Your task to perform on an android device: turn on the 12-hour format for clock Image 0: 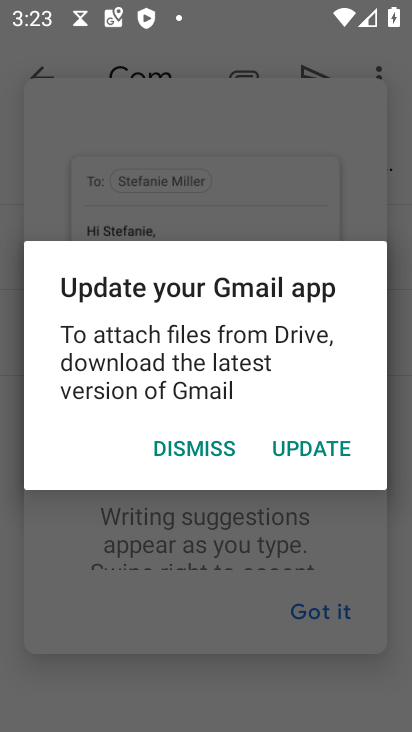
Step 0: click (324, 609)
Your task to perform on an android device: turn on the 12-hour format for clock Image 1: 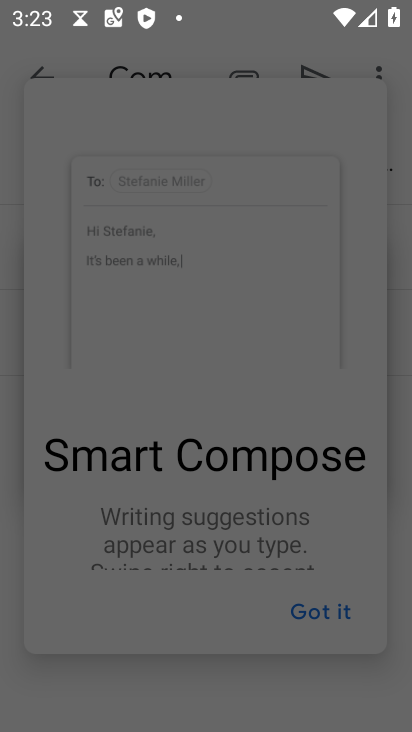
Step 1: press back button
Your task to perform on an android device: turn on the 12-hour format for clock Image 2: 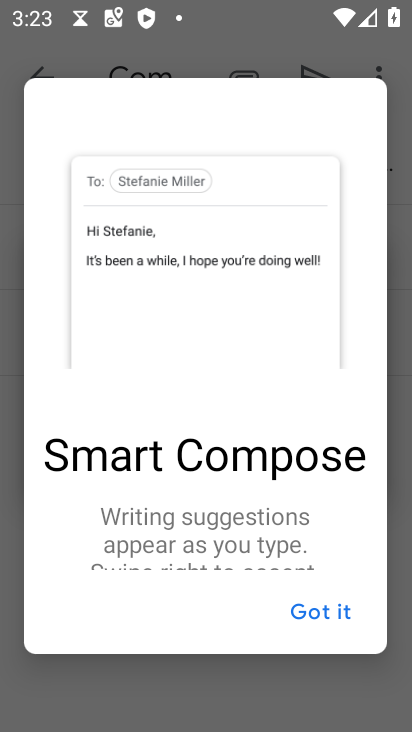
Step 2: click (327, 612)
Your task to perform on an android device: turn on the 12-hour format for clock Image 3: 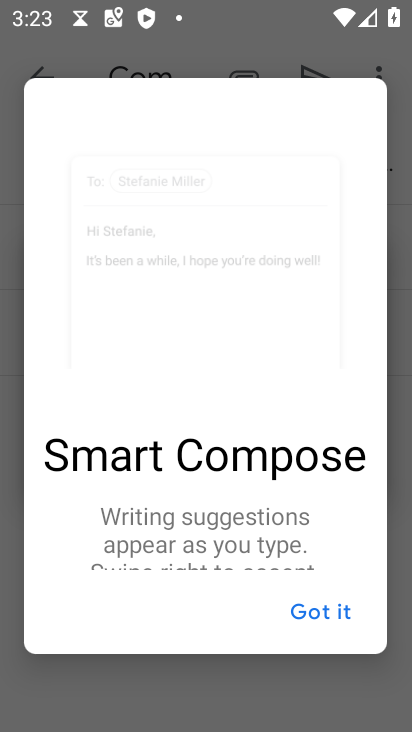
Step 3: click (327, 610)
Your task to perform on an android device: turn on the 12-hour format for clock Image 4: 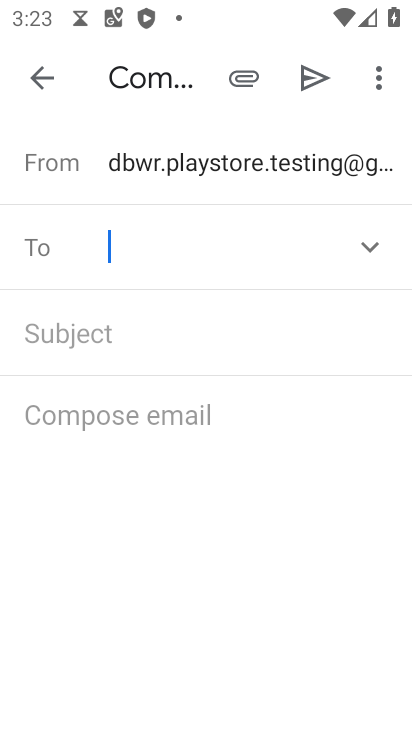
Step 4: click (38, 70)
Your task to perform on an android device: turn on the 12-hour format for clock Image 5: 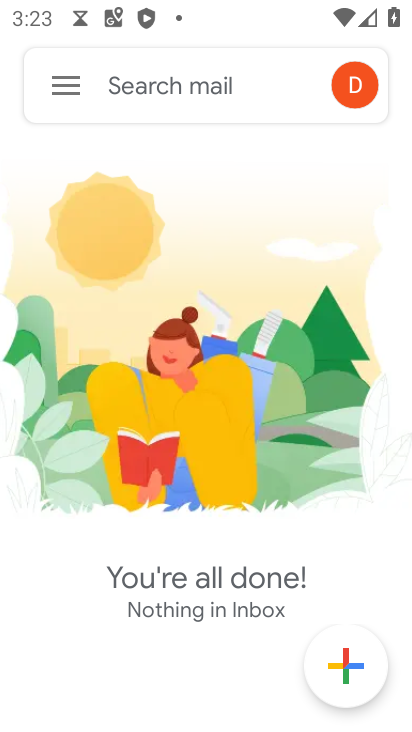
Step 5: press back button
Your task to perform on an android device: turn on the 12-hour format for clock Image 6: 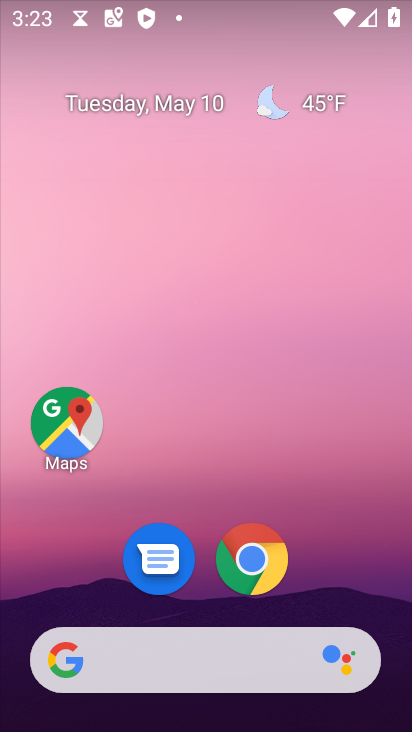
Step 6: drag from (291, 513) to (103, 116)
Your task to perform on an android device: turn on the 12-hour format for clock Image 7: 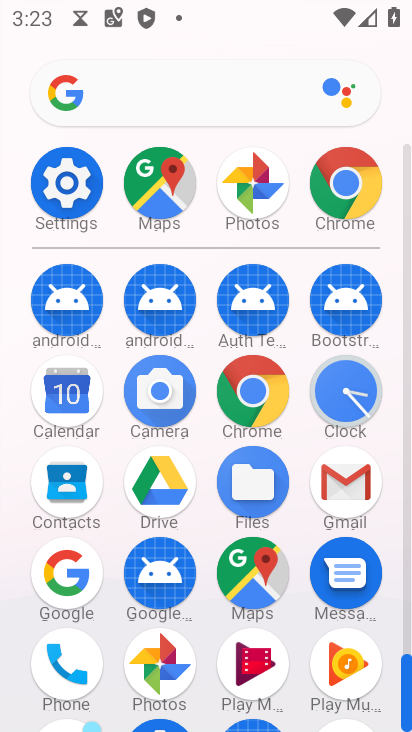
Step 7: click (340, 399)
Your task to perform on an android device: turn on the 12-hour format for clock Image 8: 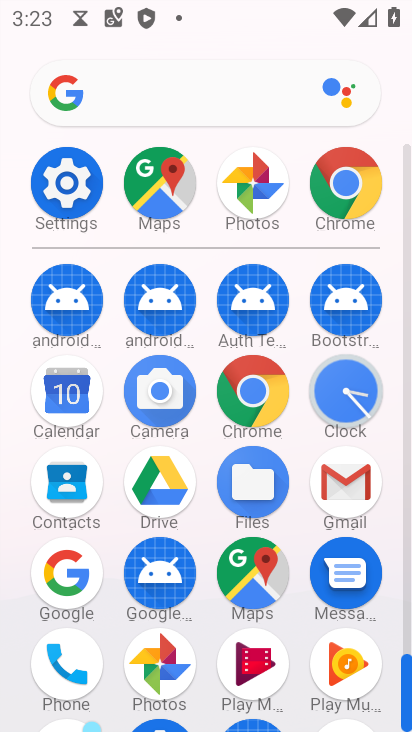
Step 8: click (341, 399)
Your task to perform on an android device: turn on the 12-hour format for clock Image 9: 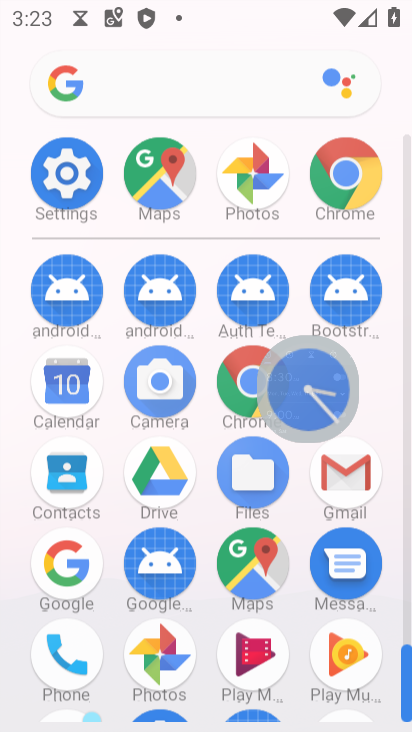
Step 9: click (342, 398)
Your task to perform on an android device: turn on the 12-hour format for clock Image 10: 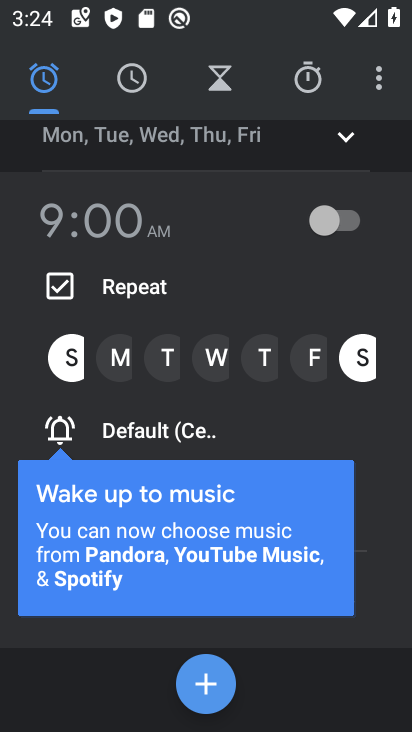
Step 10: click (322, 221)
Your task to perform on an android device: turn on the 12-hour format for clock Image 11: 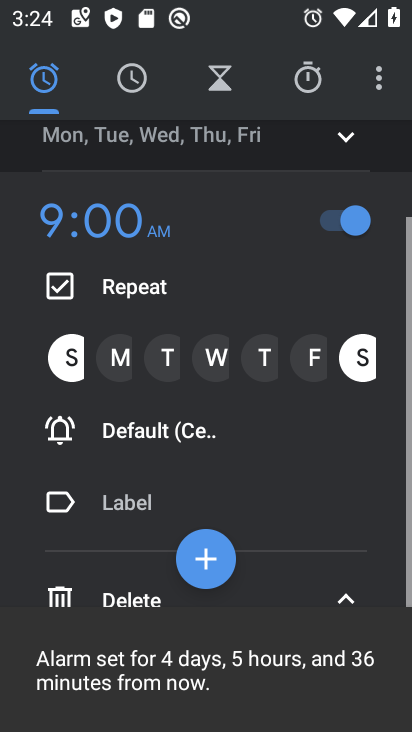
Step 11: click (376, 86)
Your task to perform on an android device: turn on the 12-hour format for clock Image 12: 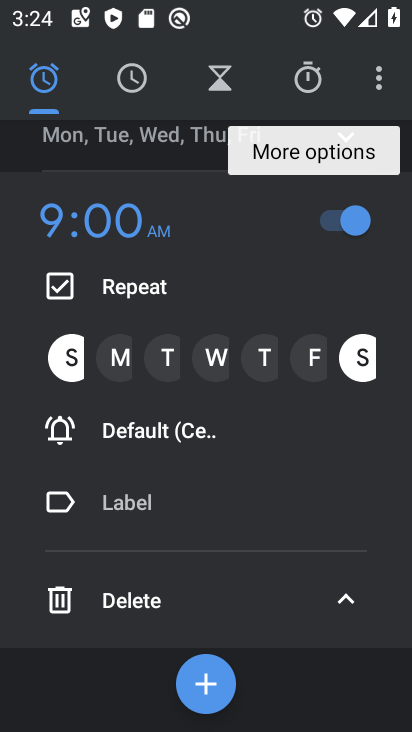
Step 12: click (376, 89)
Your task to perform on an android device: turn on the 12-hour format for clock Image 13: 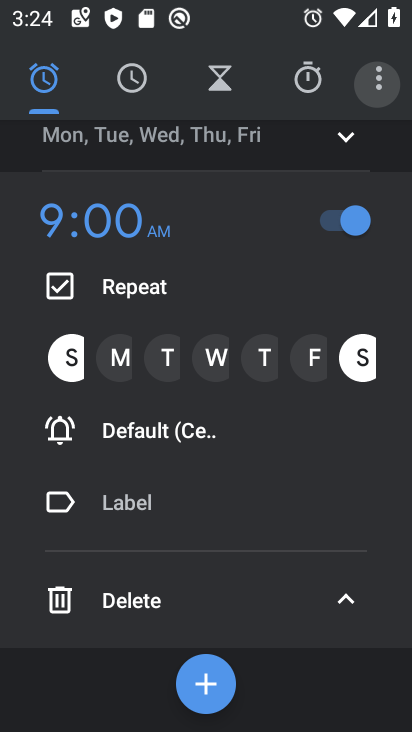
Step 13: click (376, 89)
Your task to perform on an android device: turn on the 12-hour format for clock Image 14: 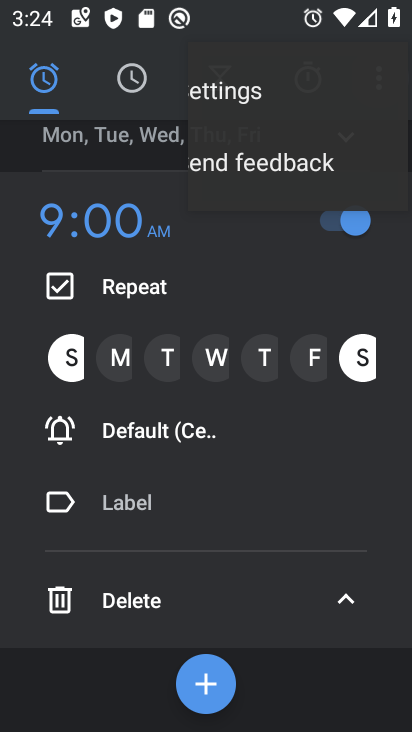
Step 14: click (376, 89)
Your task to perform on an android device: turn on the 12-hour format for clock Image 15: 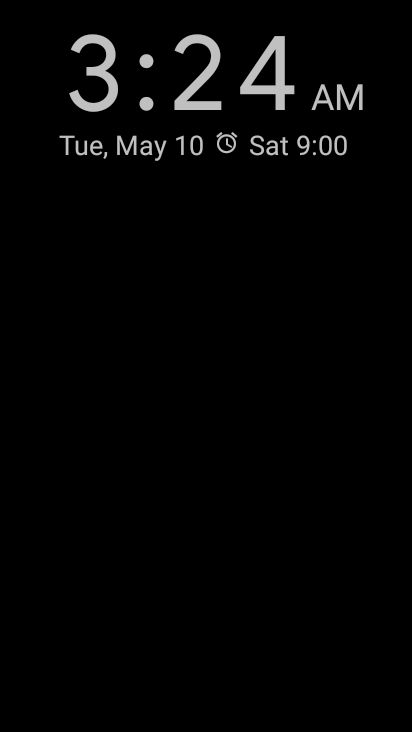
Step 15: press back button
Your task to perform on an android device: turn on the 12-hour format for clock Image 16: 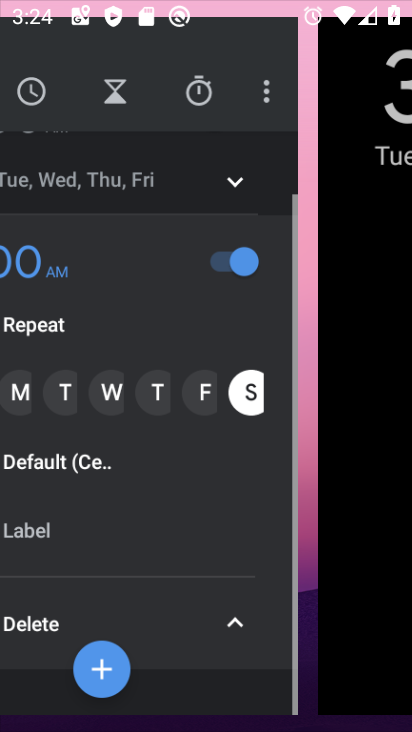
Step 16: press back button
Your task to perform on an android device: turn on the 12-hour format for clock Image 17: 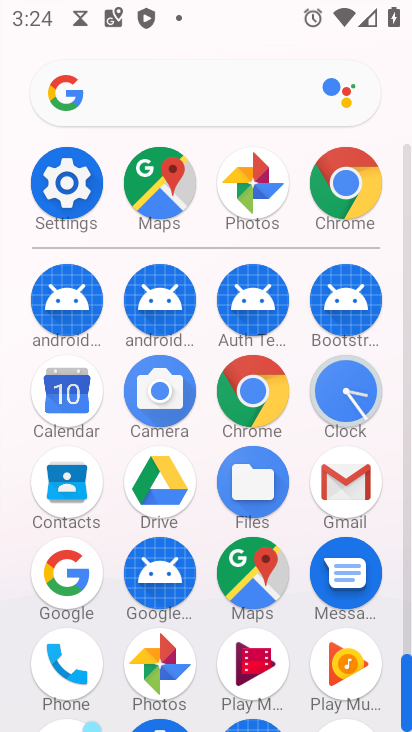
Step 17: click (339, 392)
Your task to perform on an android device: turn on the 12-hour format for clock Image 18: 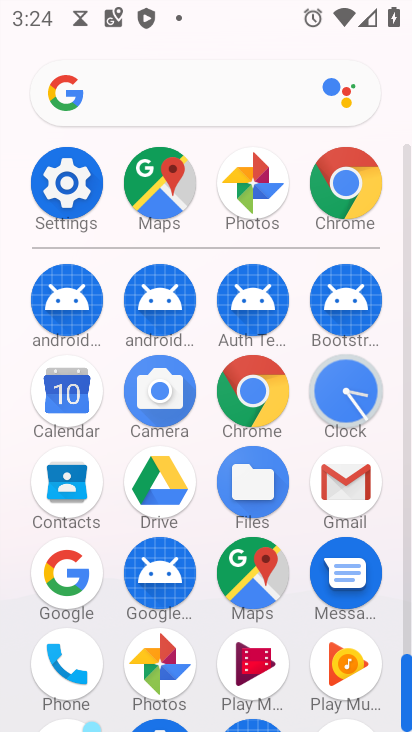
Step 18: click (339, 402)
Your task to perform on an android device: turn on the 12-hour format for clock Image 19: 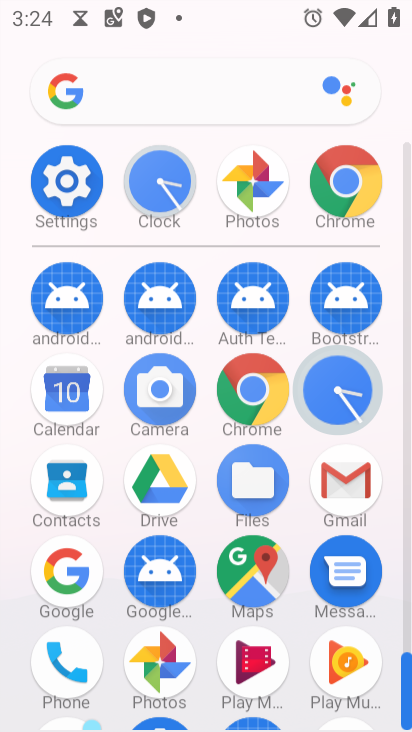
Step 19: click (340, 403)
Your task to perform on an android device: turn on the 12-hour format for clock Image 20: 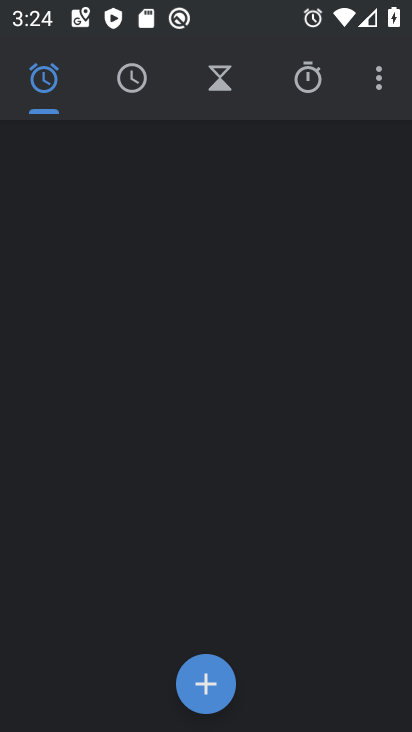
Step 20: click (345, 404)
Your task to perform on an android device: turn on the 12-hour format for clock Image 21: 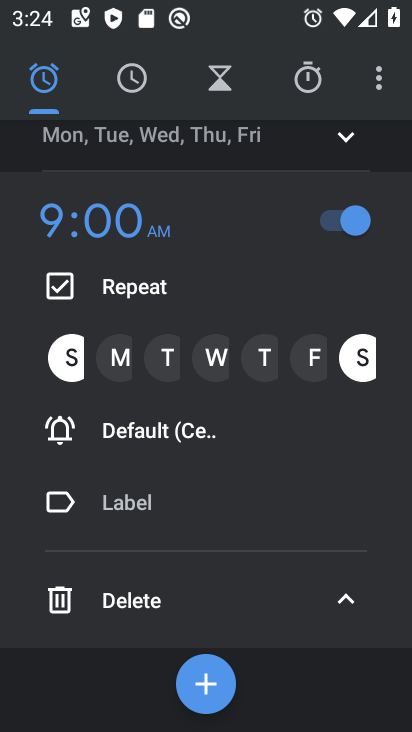
Step 21: click (377, 80)
Your task to perform on an android device: turn on the 12-hour format for clock Image 22: 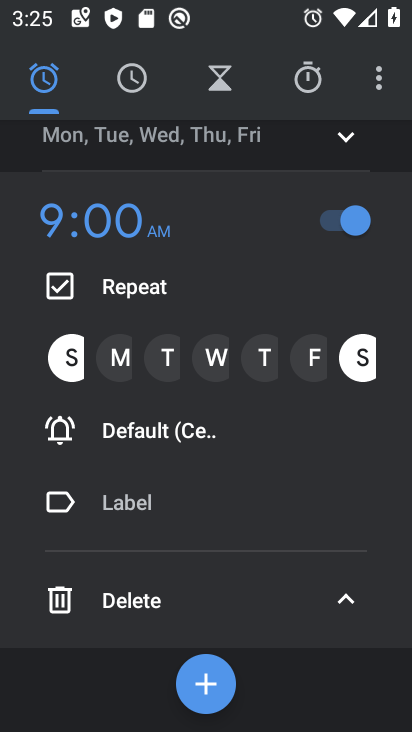
Step 22: click (377, 74)
Your task to perform on an android device: turn on the 12-hour format for clock Image 23: 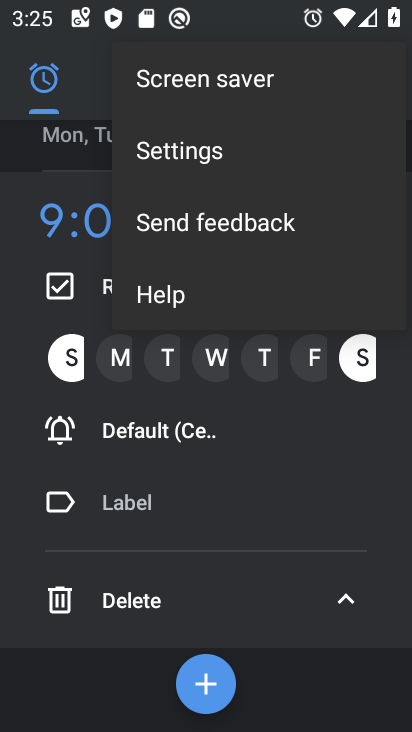
Step 23: click (175, 147)
Your task to perform on an android device: turn on the 12-hour format for clock Image 24: 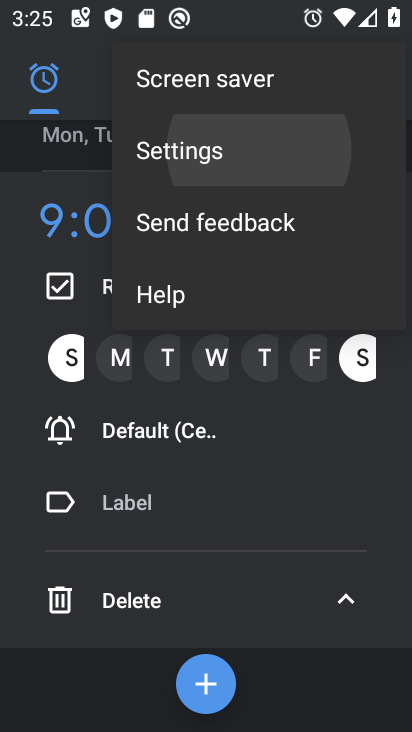
Step 24: click (175, 147)
Your task to perform on an android device: turn on the 12-hour format for clock Image 25: 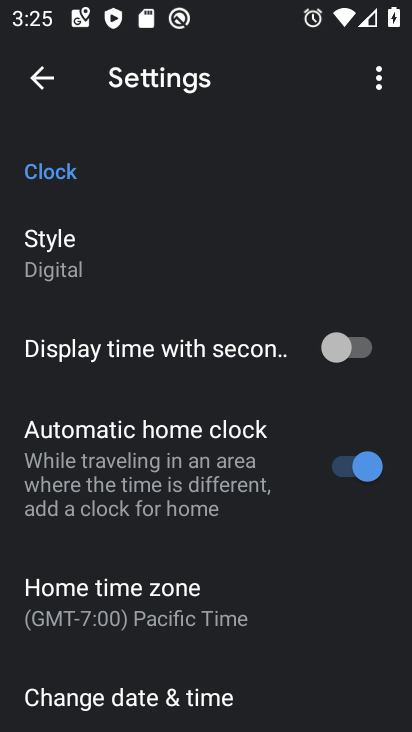
Step 25: drag from (227, 609) to (124, 147)
Your task to perform on an android device: turn on the 12-hour format for clock Image 26: 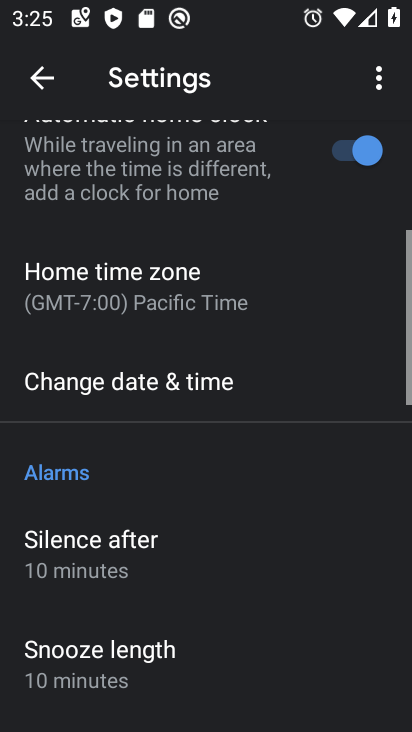
Step 26: drag from (132, 460) to (99, 173)
Your task to perform on an android device: turn on the 12-hour format for clock Image 27: 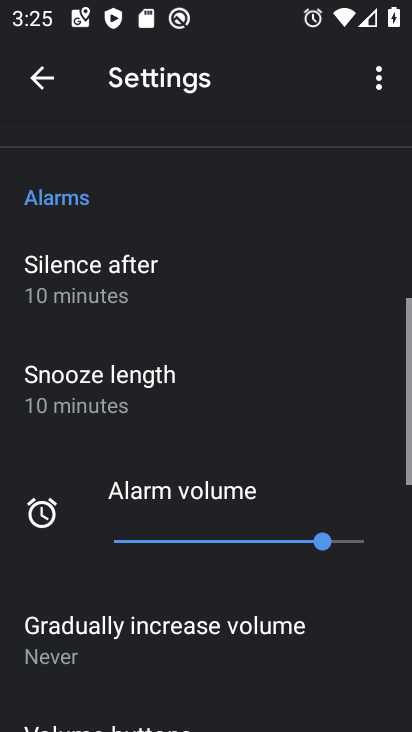
Step 27: drag from (136, 500) to (131, 249)
Your task to perform on an android device: turn on the 12-hour format for clock Image 28: 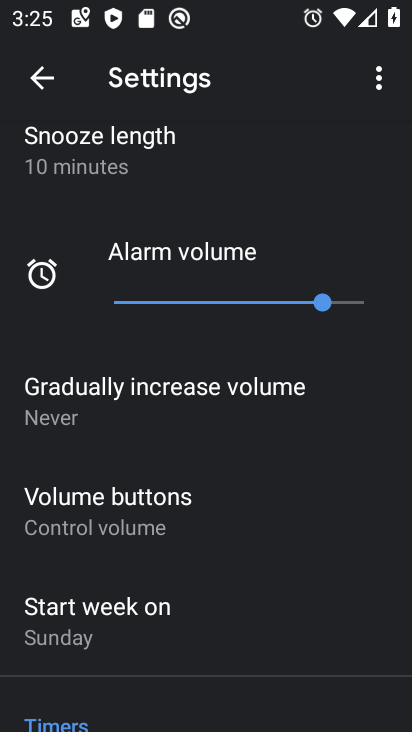
Step 28: drag from (113, 592) to (108, 72)
Your task to perform on an android device: turn on the 12-hour format for clock Image 29: 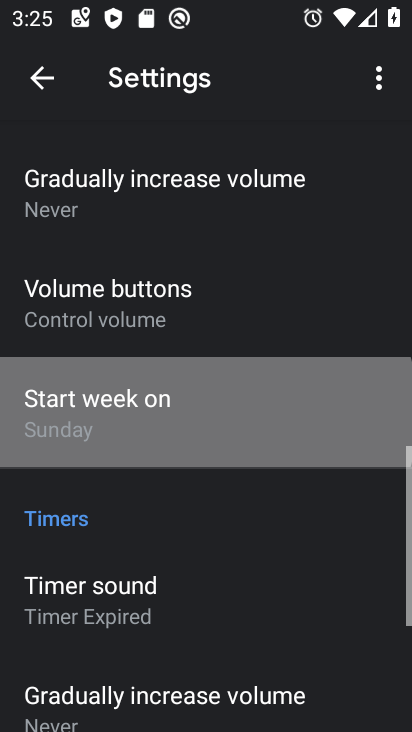
Step 29: click (182, 123)
Your task to perform on an android device: turn on the 12-hour format for clock Image 30: 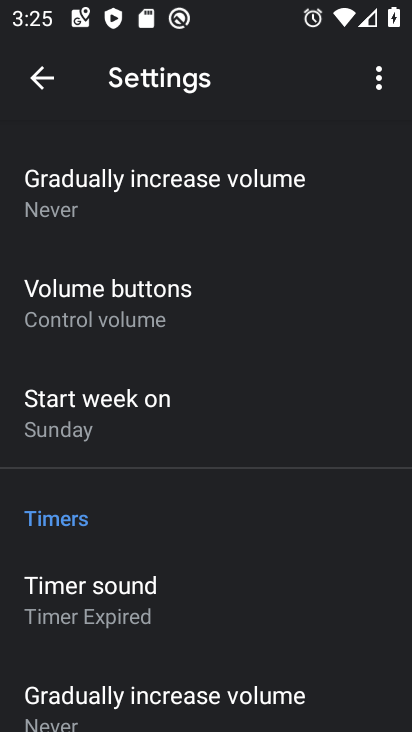
Step 30: drag from (139, 645) to (174, 120)
Your task to perform on an android device: turn on the 12-hour format for clock Image 31: 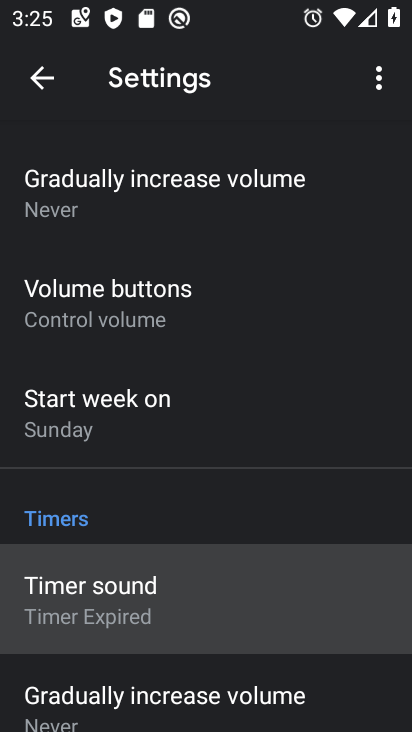
Step 31: drag from (216, 652) to (222, 144)
Your task to perform on an android device: turn on the 12-hour format for clock Image 32: 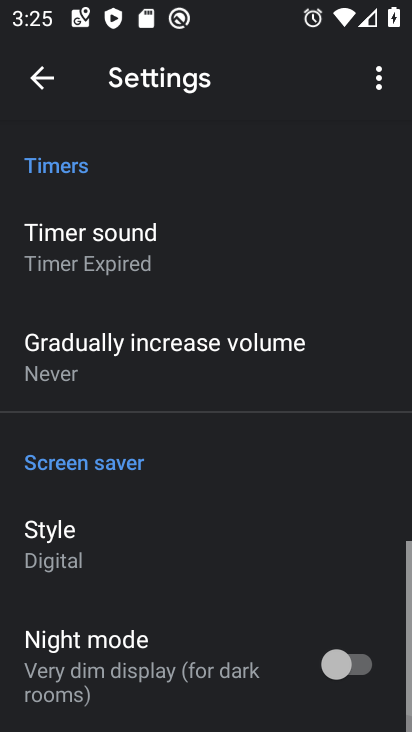
Step 32: drag from (213, 620) to (161, 286)
Your task to perform on an android device: turn on the 12-hour format for clock Image 33: 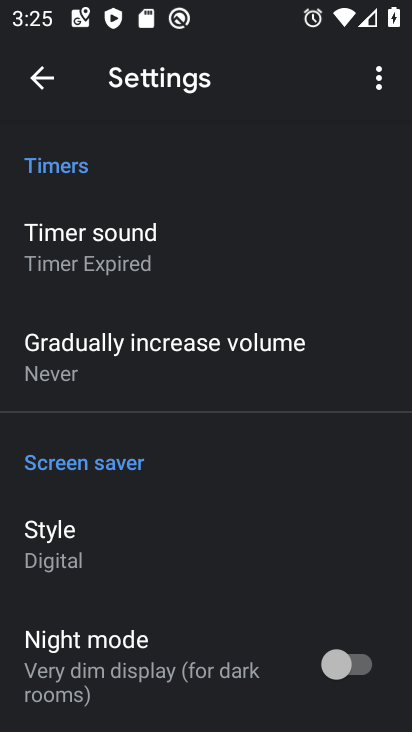
Step 33: drag from (209, 554) to (131, 127)
Your task to perform on an android device: turn on the 12-hour format for clock Image 34: 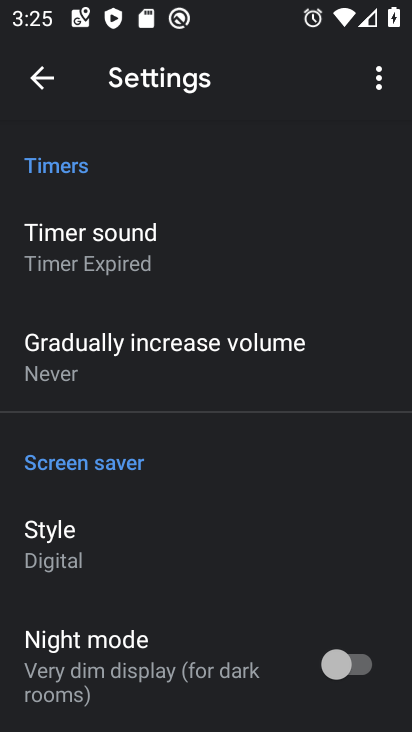
Step 34: drag from (179, 401) to (163, 41)
Your task to perform on an android device: turn on the 12-hour format for clock Image 35: 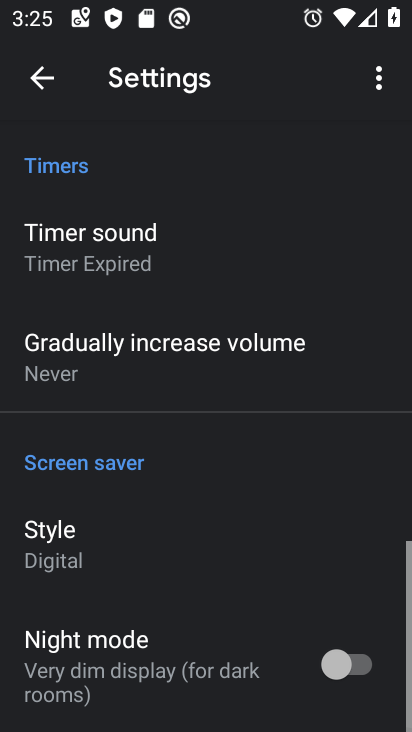
Step 35: drag from (159, 471) to (126, 67)
Your task to perform on an android device: turn on the 12-hour format for clock Image 36: 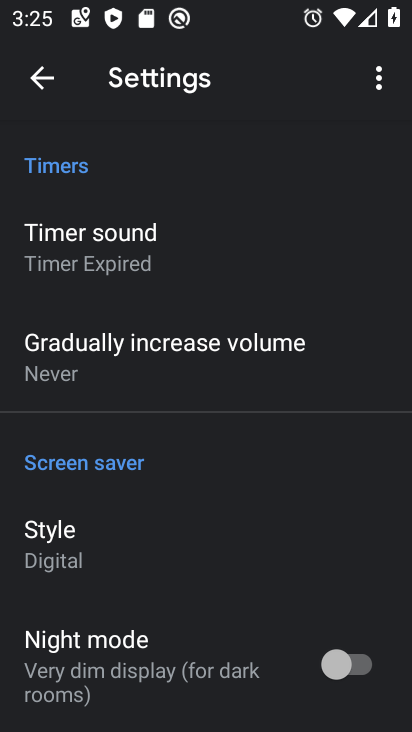
Step 36: drag from (156, 576) to (151, 79)
Your task to perform on an android device: turn on the 12-hour format for clock Image 37: 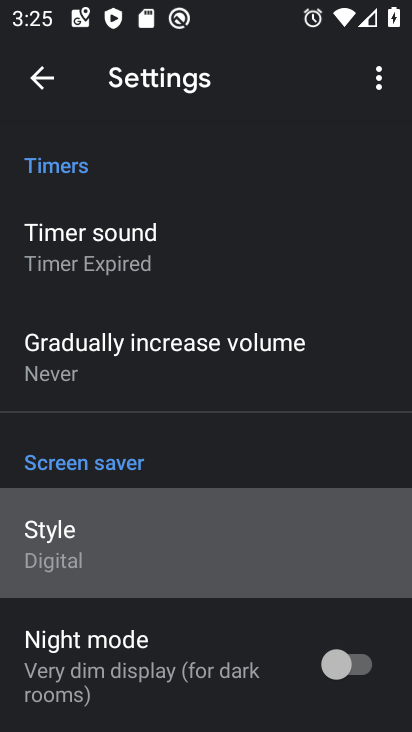
Step 37: drag from (264, 492) to (229, 201)
Your task to perform on an android device: turn on the 12-hour format for clock Image 38: 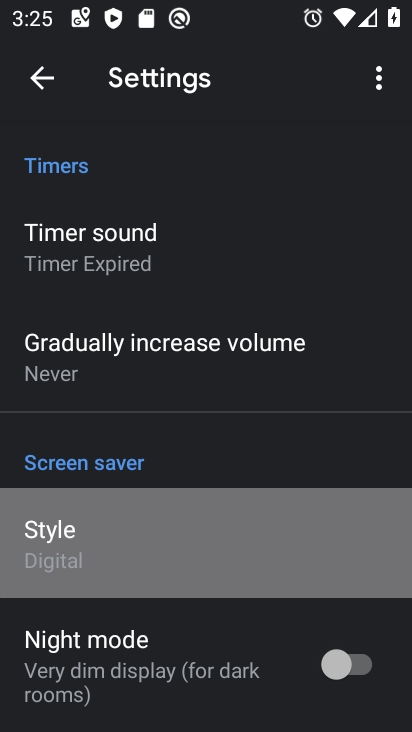
Step 38: drag from (209, 239) to (243, 492)
Your task to perform on an android device: turn on the 12-hour format for clock Image 39: 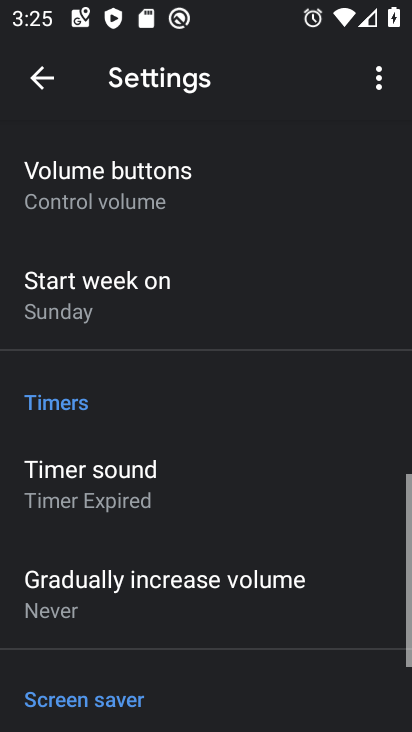
Step 39: drag from (191, 344) to (231, 561)
Your task to perform on an android device: turn on the 12-hour format for clock Image 40: 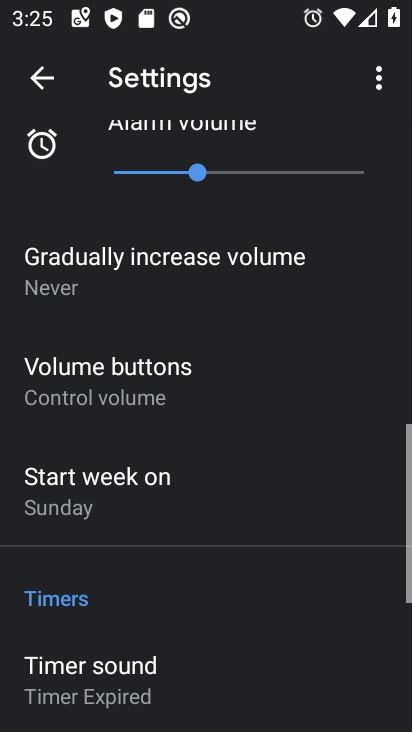
Step 40: drag from (180, 310) to (204, 430)
Your task to perform on an android device: turn on the 12-hour format for clock Image 41: 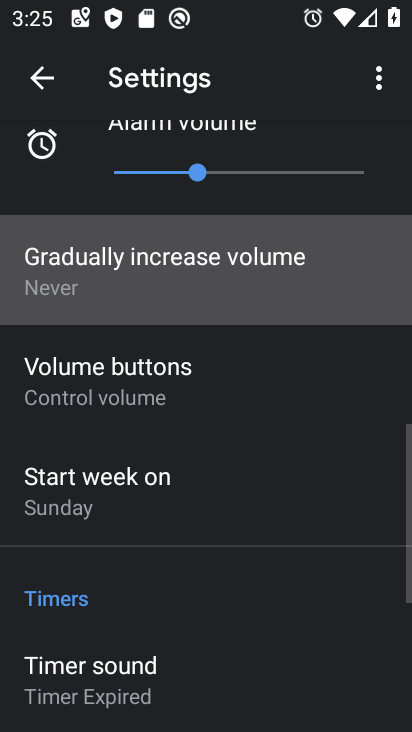
Step 41: drag from (139, 283) to (217, 586)
Your task to perform on an android device: turn on the 12-hour format for clock Image 42: 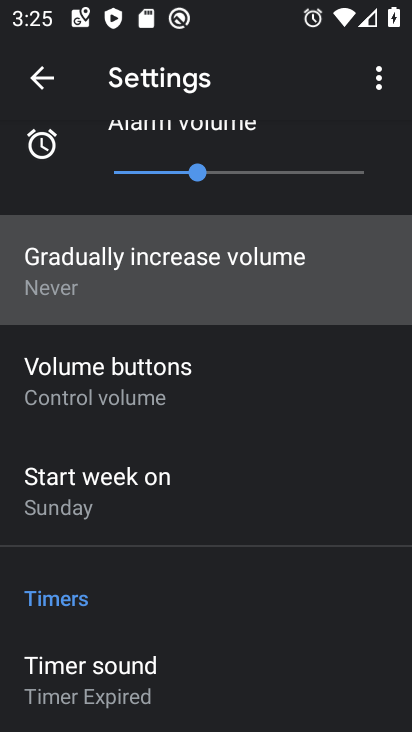
Step 42: drag from (161, 374) to (229, 685)
Your task to perform on an android device: turn on the 12-hour format for clock Image 43: 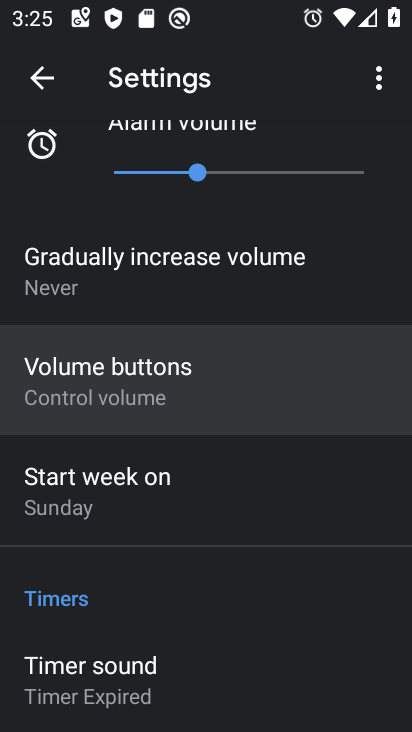
Step 43: drag from (191, 349) to (267, 689)
Your task to perform on an android device: turn on the 12-hour format for clock Image 44: 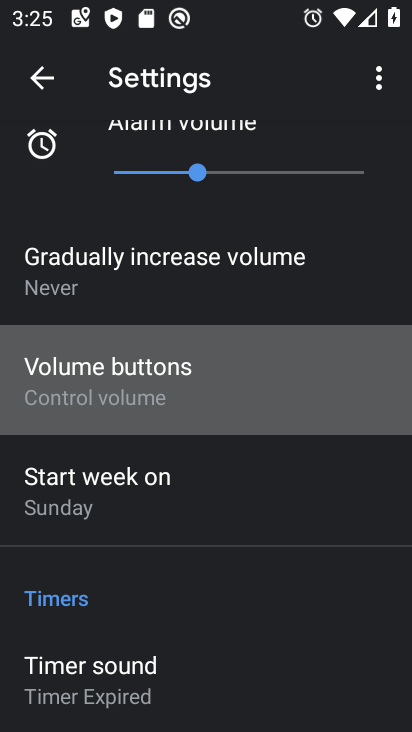
Step 44: drag from (224, 350) to (272, 594)
Your task to perform on an android device: turn on the 12-hour format for clock Image 45: 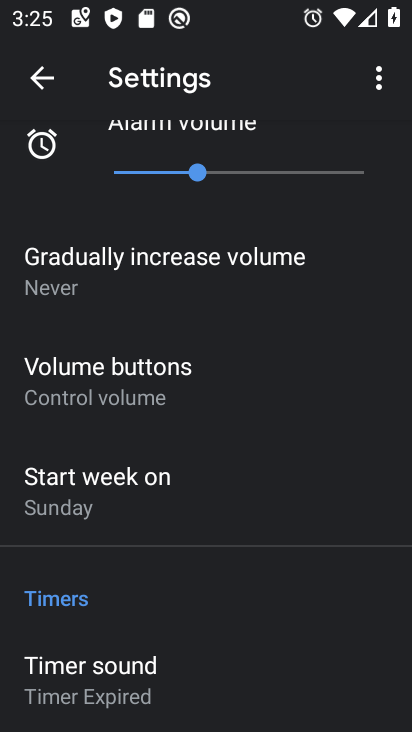
Step 45: drag from (370, 107) to (410, 567)
Your task to perform on an android device: turn on the 12-hour format for clock Image 46: 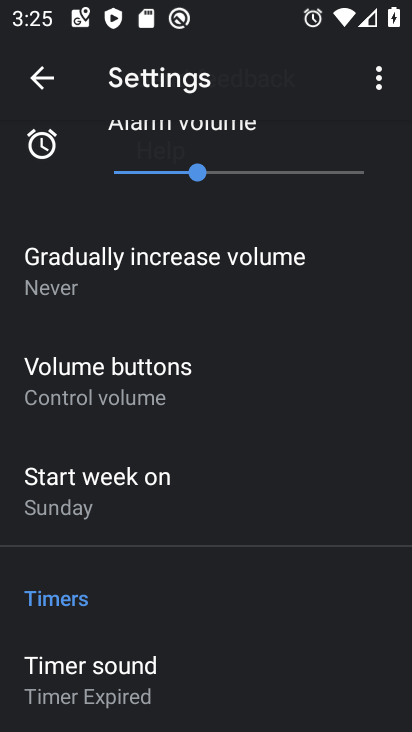
Step 46: drag from (277, 320) to (300, 626)
Your task to perform on an android device: turn on the 12-hour format for clock Image 47: 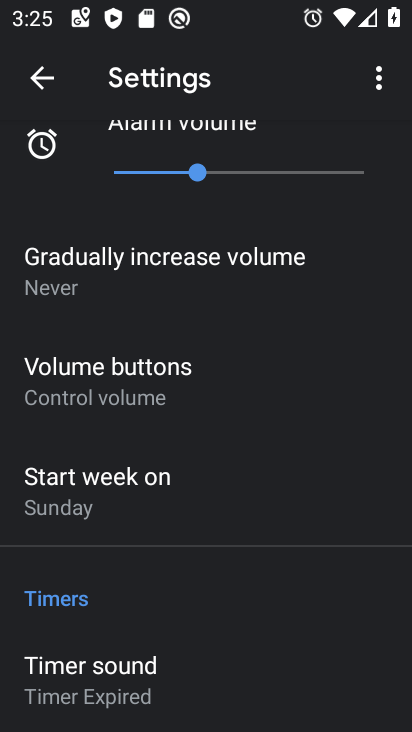
Step 47: drag from (192, 421) to (238, 717)
Your task to perform on an android device: turn on the 12-hour format for clock Image 48: 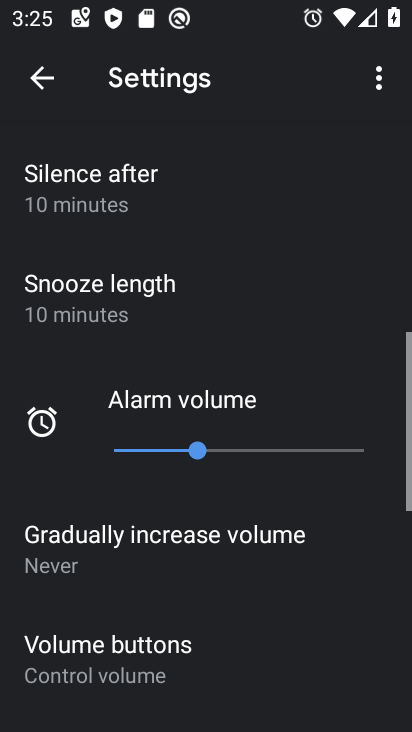
Step 48: drag from (280, 373) to (328, 716)
Your task to perform on an android device: turn on the 12-hour format for clock Image 49: 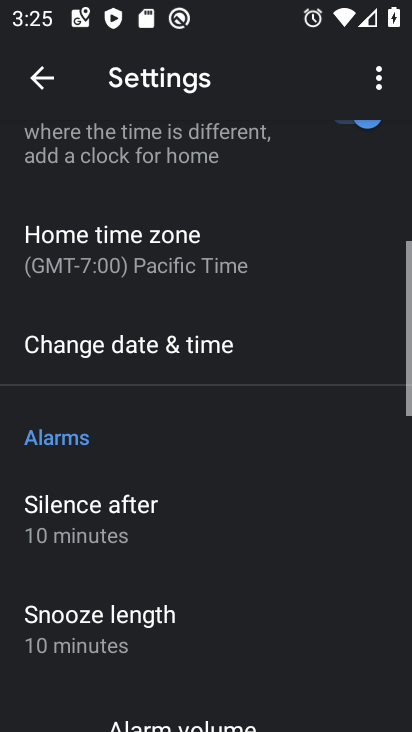
Step 49: click (296, 406)
Your task to perform on an android device: turn on the 12-hour format for clock Image 50: 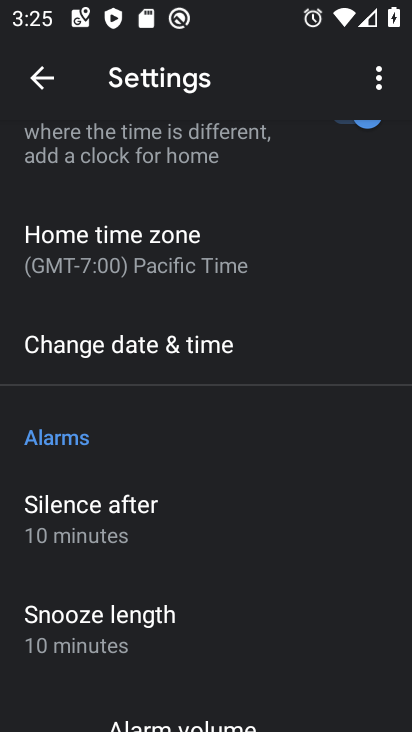
Step 50: click (122, 248)
Your task to perform on an android device: turn on the 12-hour format for clock Image 51: 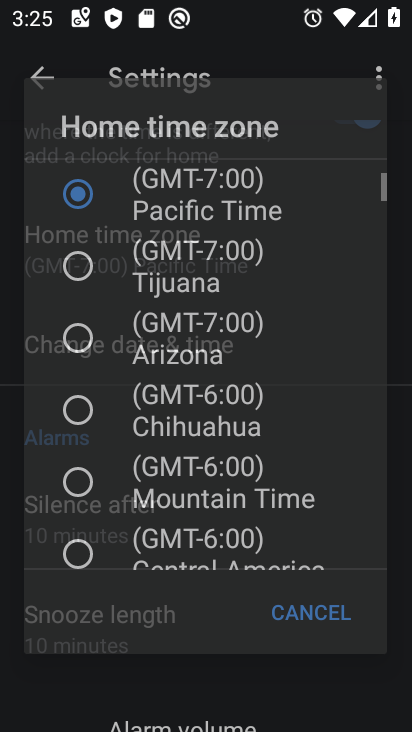
Step 51: click (125, 250)
Your task to perform on an android device: turn on the 12-hour format for clock Image 52: 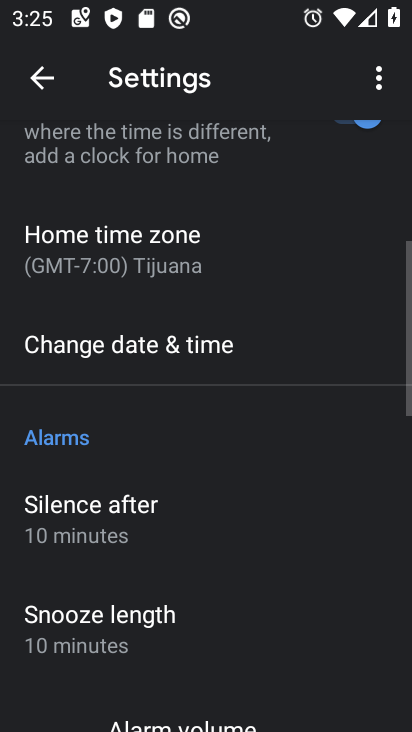
Step 52: click (128, 246)
Your task to perform on an android device: turn on the 12-hour format for clock Image 53: 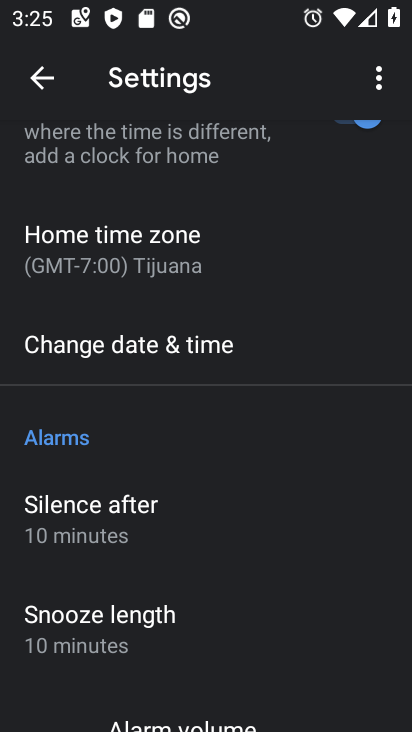
Step 53: click (118, 341)
Your task to perform on an android device: turn on the 12-hour format for clock Image 54: 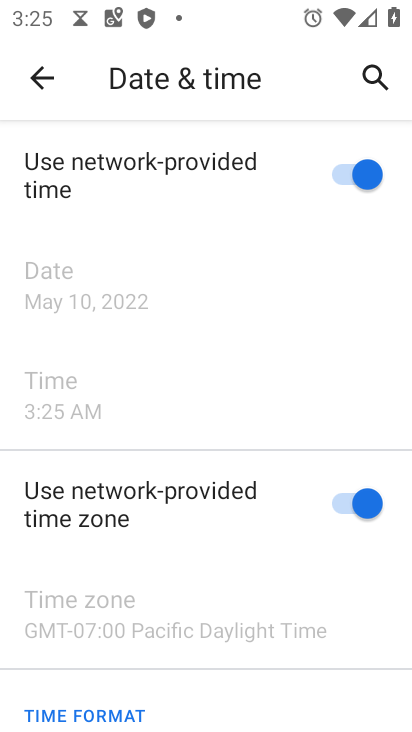
Step 54: drag from (293, 600) to (216, 256)
Your task to perform on an android device: turn on the 12-hour format for clock Image 55: 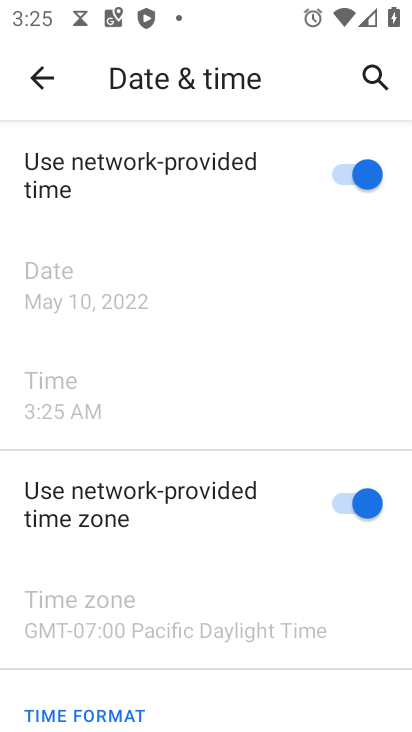
Step 55: drag from (186, 549) to (151, 159)
Your task to perform on an android device: turn on the 12-hour format for clock Image 56: 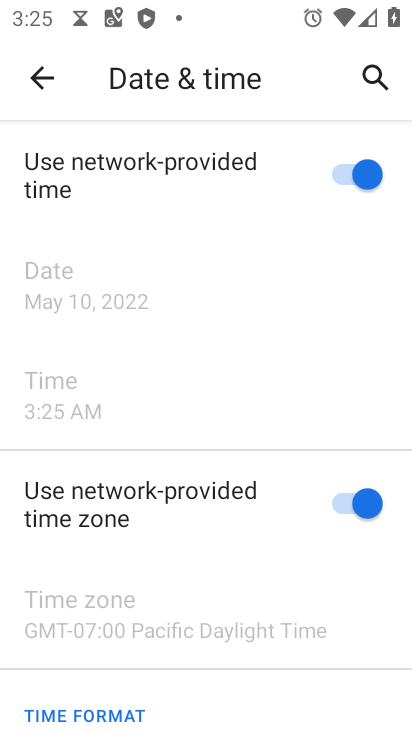
Step 56: drag from (226, 522) to (214, 229)
Your task to perform on an android device: turn on the 12-hour format for clock Image 57: 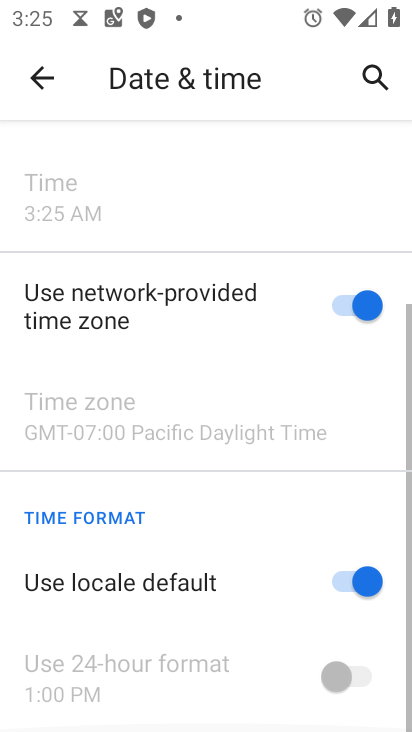
Step 57: drag from (212, 659) to (191, 242)
Your task to perform on an android device: turn on the 12-hour format for clock Image 58: 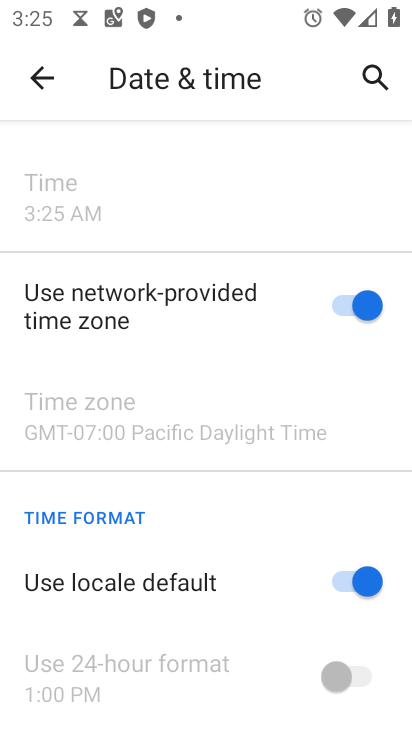
Step 58: drag from (286, 637) to (210, 158)
Your task to perform on an android device: turn on the 12-hour format for clock Image 59: 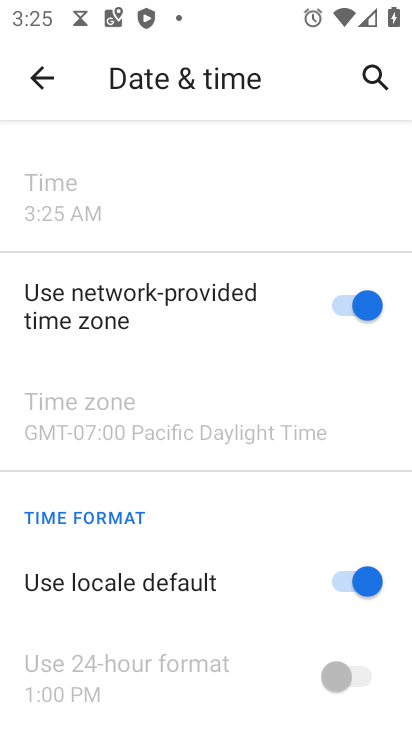
Step 59: drag from (222, 424) to (141, 5)
Your task to perform on an android device: turn on the 12-hour format for clock Image 60: 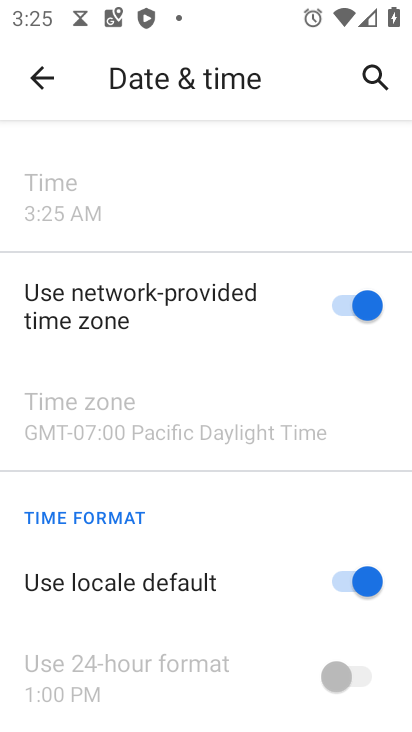
Step 60: drag from (205, 542) to (72, 0)
Your task to perform on an android device: turn on the 12-hour format for clock Image 61: 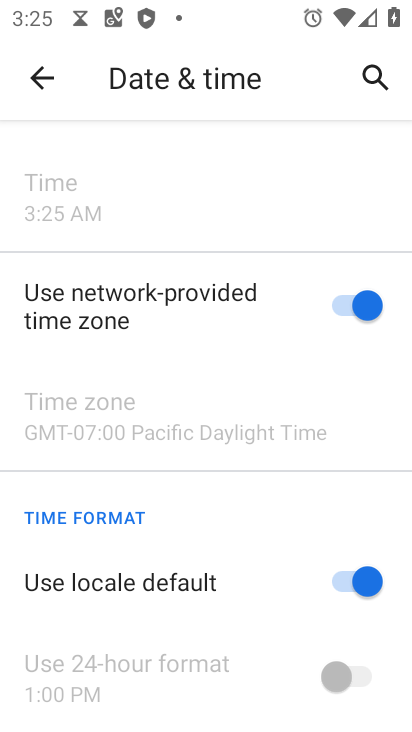
Step 61: drag from (137, 443) to (82, 3)
Your task to perform on an android device: turn on the 12-hour format for clock Image 62: 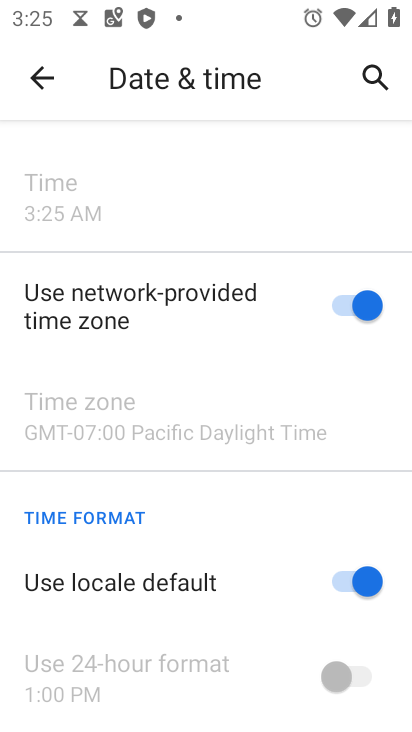
Step 62: drag from (142, 527) to (176, 47)
Your task to perform on an android device: turn on the 12-hour format for clock Image 63: 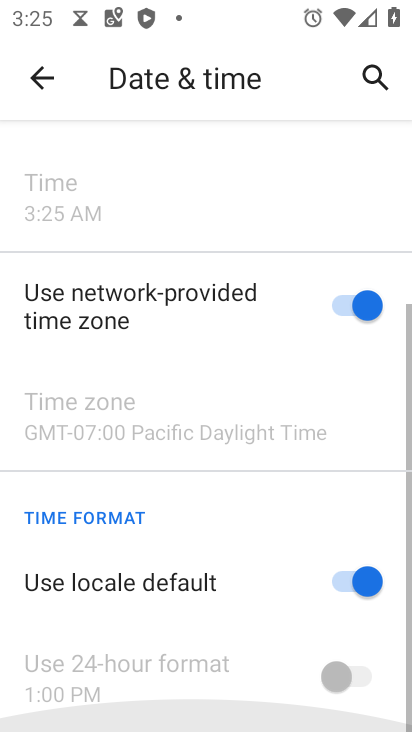
Step 63: drag from (226, 559) to (172, 221)
Your task to perform on an android device: turn on the 12-hour format for clock Image 64: 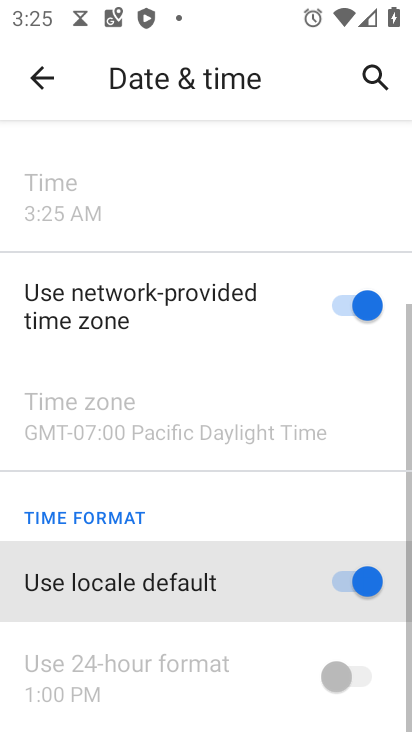
Step 64: drag from (221, 474) to (169, 83)
Your task to perform on an android device: turn on the 12-hour format for clock Image 65: 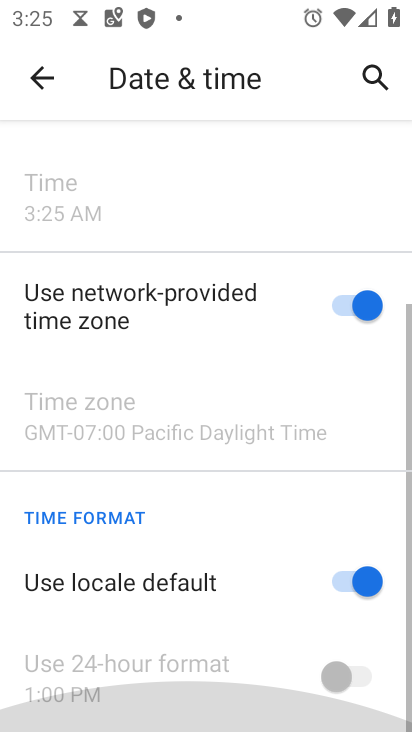
Step 65: drag from (294, 686) to (181, 172)
Your task to perform on an android device: turn on the 12-hour format for clock Image 66: 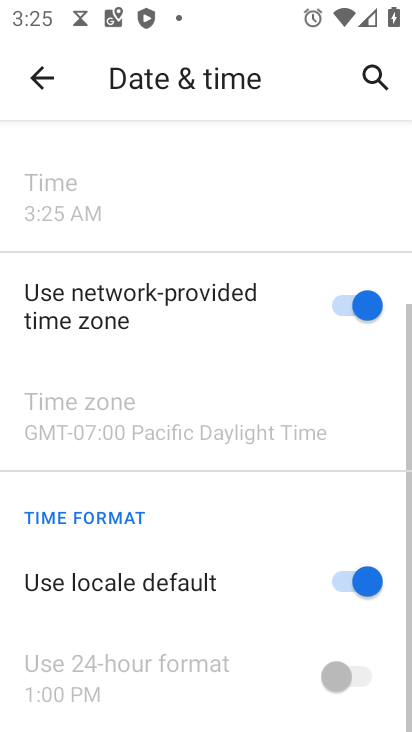
Step 66: drag from (301, 602) to (293, 370)
Your task to perform on an android device: turn on the 12-hour format for clock Image 67: 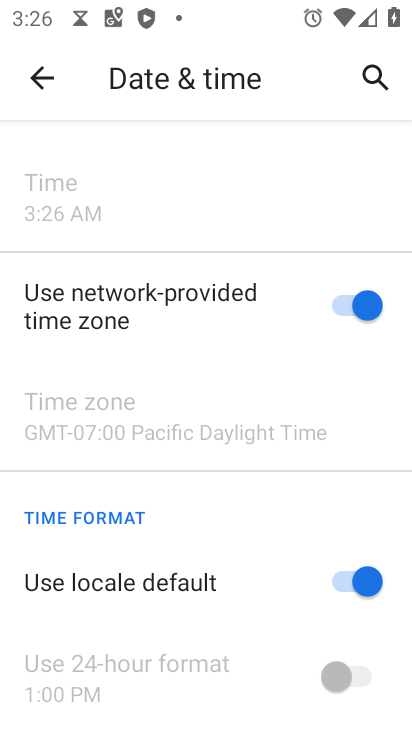
Step 67: click (327, 685)
Your task to perform on an android device: turn on the 12-hour format for clock Image 68: 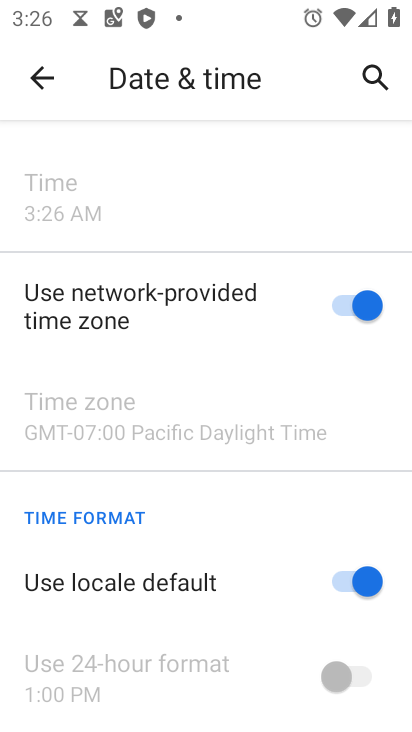
Step 68: task complete